Your task to perform on an android device: What's the weather going to be this weekend? Image 0: 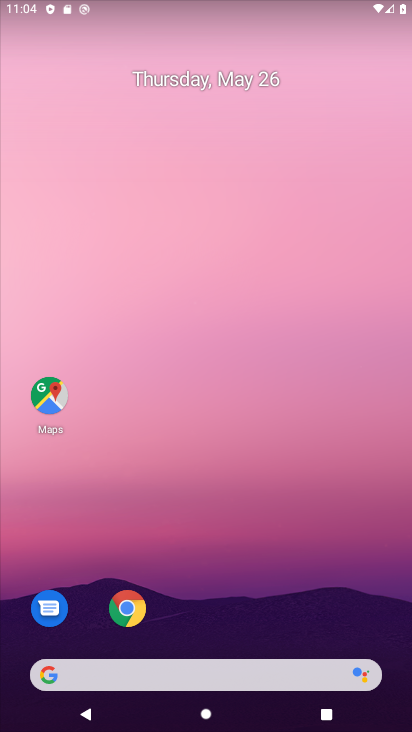
Step 0: drag from (324, 613) to (282, 122)
Your task to perform on an android device: What's the weather going to be this weekend? Image 1: 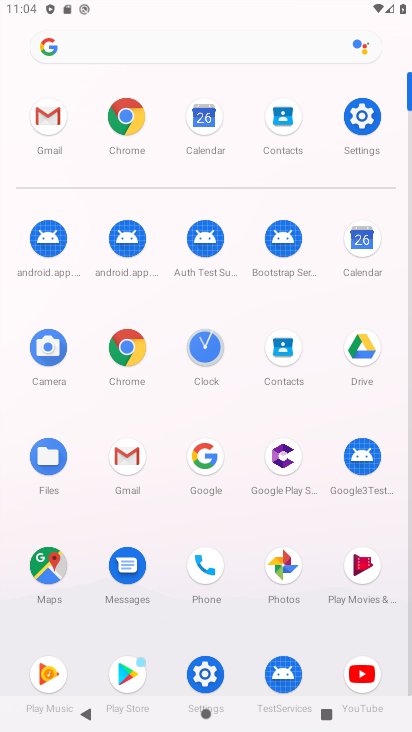
Step 1: click (131, 124)
Your task to perform on an android device: What's the weather going to be this weekend? Image 2: 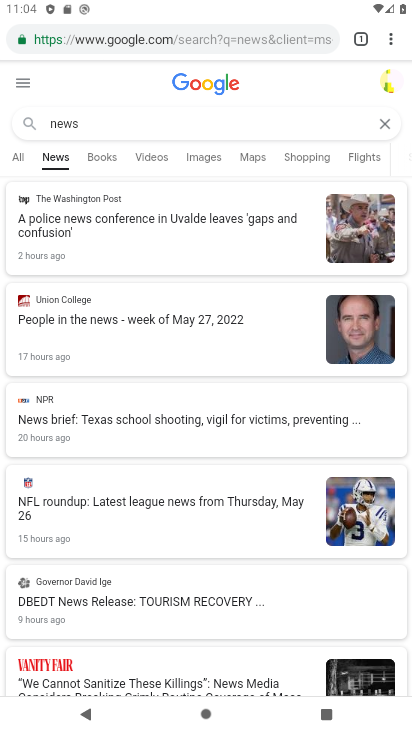
Step 2: click (150, 122)
Your task to perform on an android device: What's the weather going to be this weekend? Image 3: 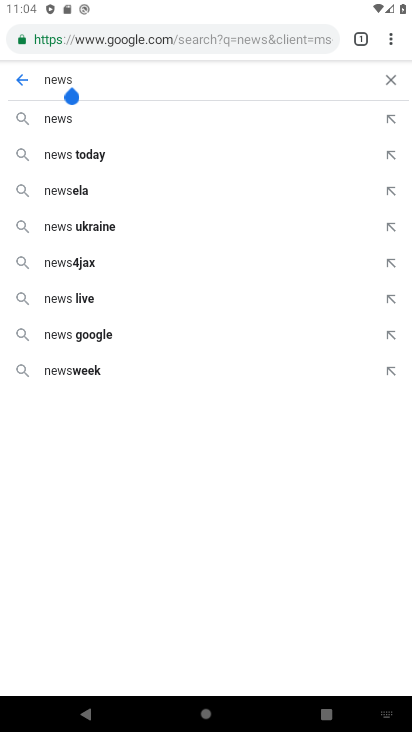
Step 3: click (387, 76)
Your task to perform on an android device: What's the weather going to be this weekend? Image 4: 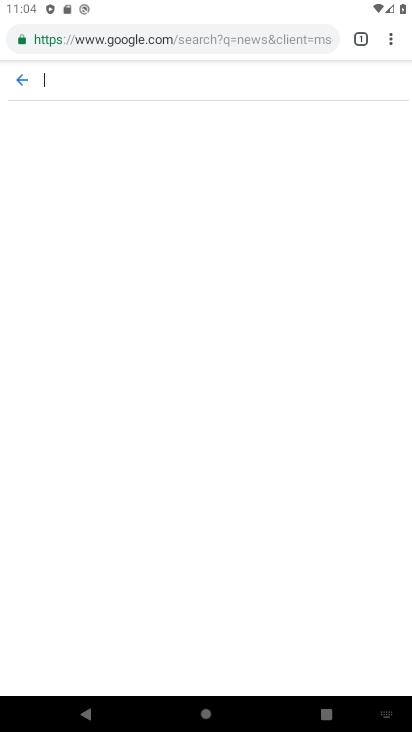
Step 4: click (239, 45)
Your task to perform on an android device: What's the weather going to be this weekend? Image 5: 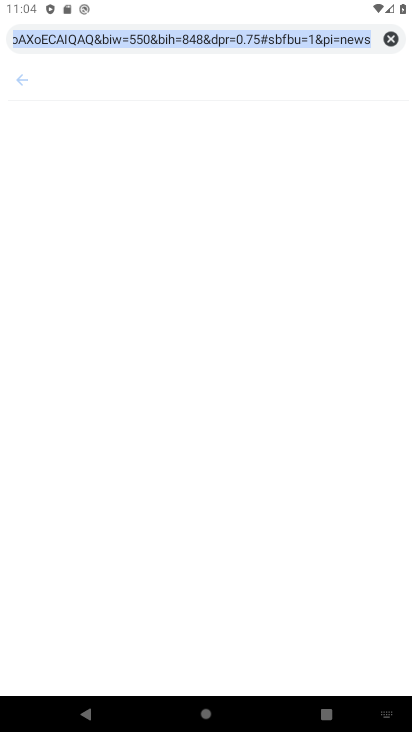
Step 5: type "weather"
Your task to perform on an android device: What's the weather going to be this weekend? Image 6: 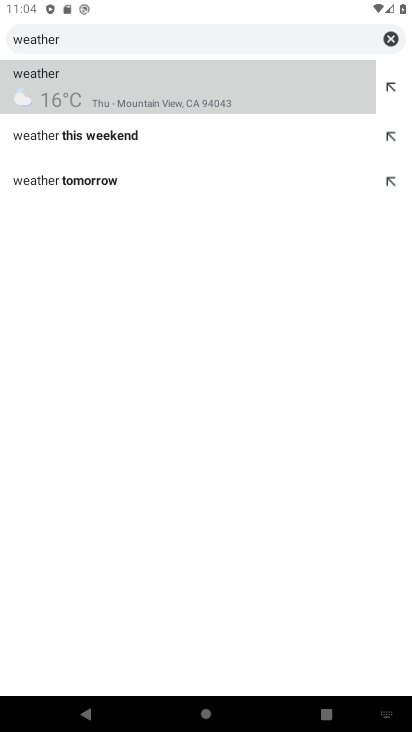
Step 6: click (124, 103)
Your task to perform on an android device: What's the weather going to be this weekend? Image 7: 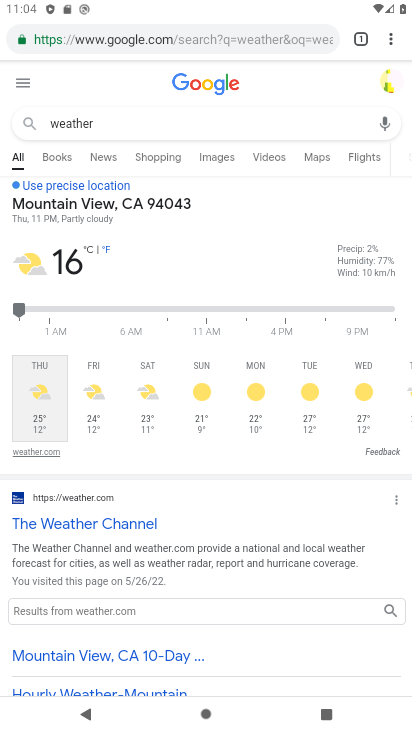
Step 7: click (195, 391)
Your task to perform on an android device: What's the weather going to be this weekend? Image 8: 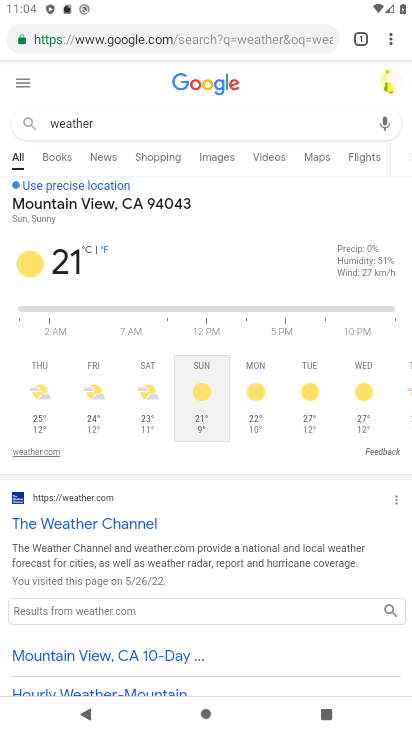
Step 8: task complete